Your task to perform on an android device: set an alarm Image 0: 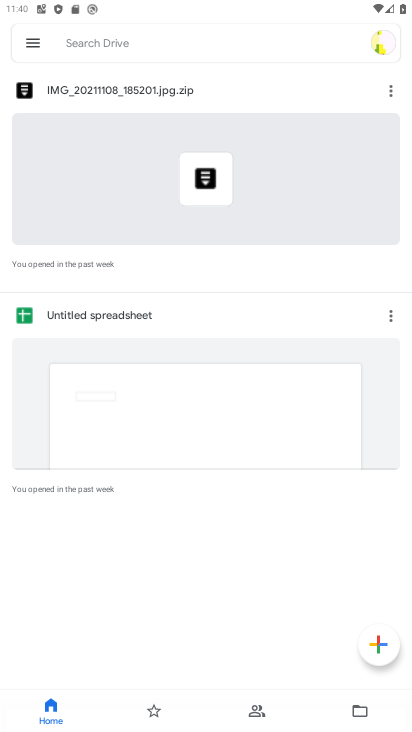
Step 0: press home button
Your task to perform on an android device: set an alarm Image 1: 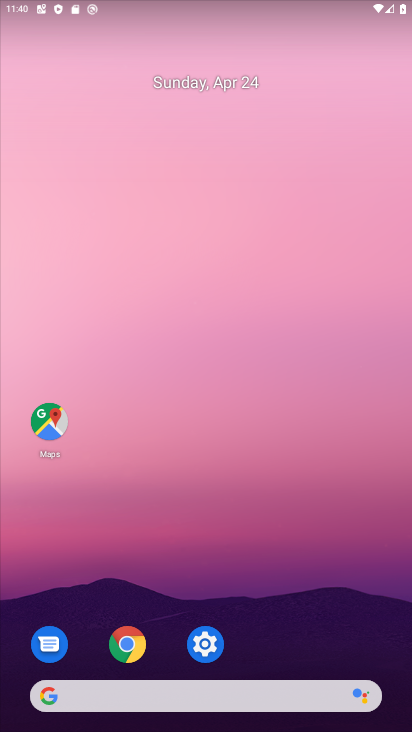
Step 1: drag from (297, 595) to (197, 79)
Your task to perform on an android device: set an alarm Image 2: 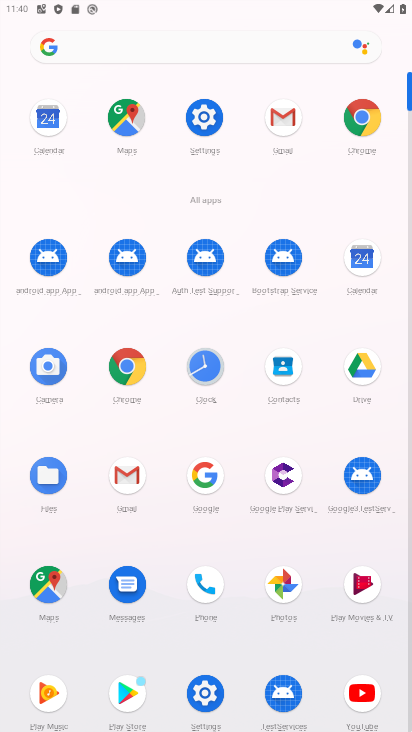
Step 2: click (208, 363)
Your task to perform on an android device: set an alarm Image 3: 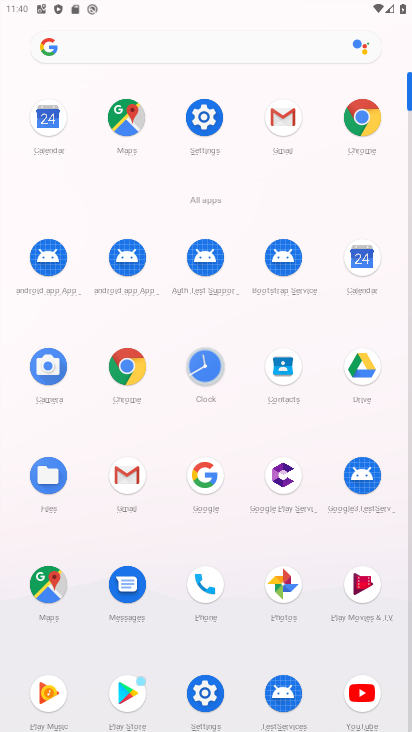
Step 3: click (207, 362)
Your task to perform on an android device: set an alarm Image 4: 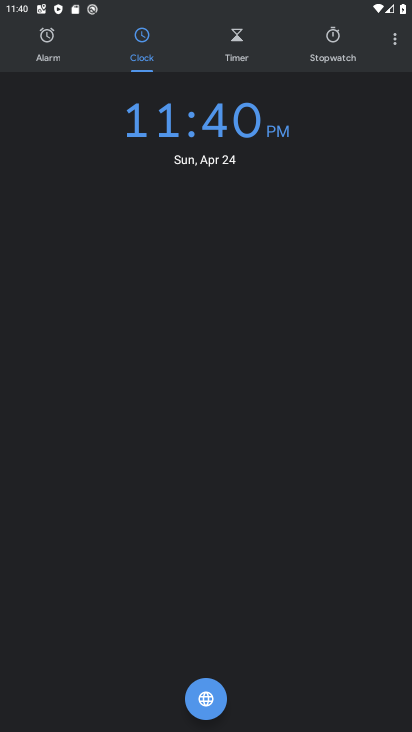
Step 4: click (50, 51)
Your task to perform on an android device: set an alarm Image 5: 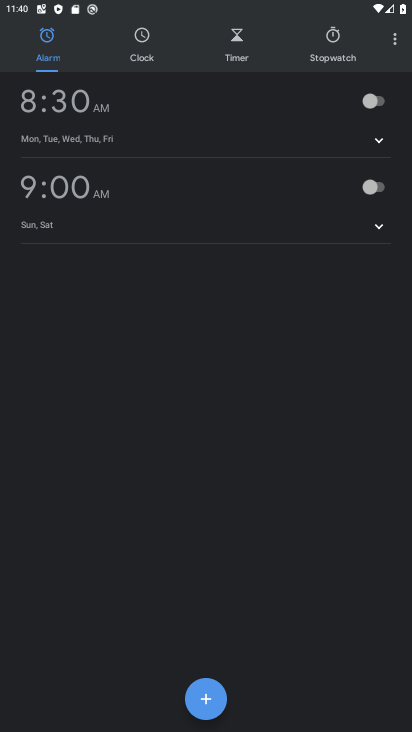
Step 5: click (381, 103)
Your task to perform on an android device: set an alarm Image 6: 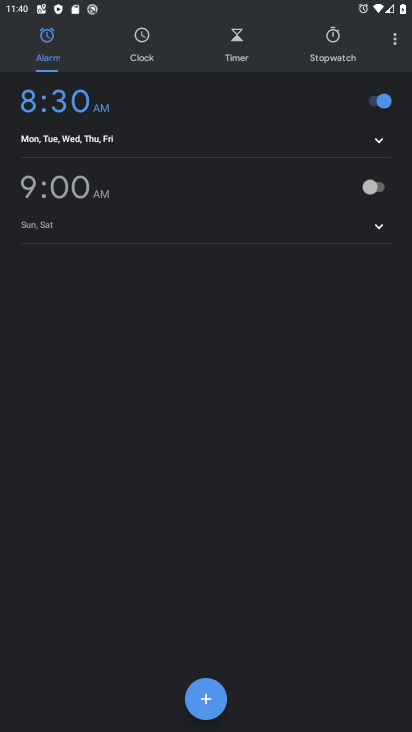
Step 6: task complete